Your task to perform on an android device: check battery use Image 0: 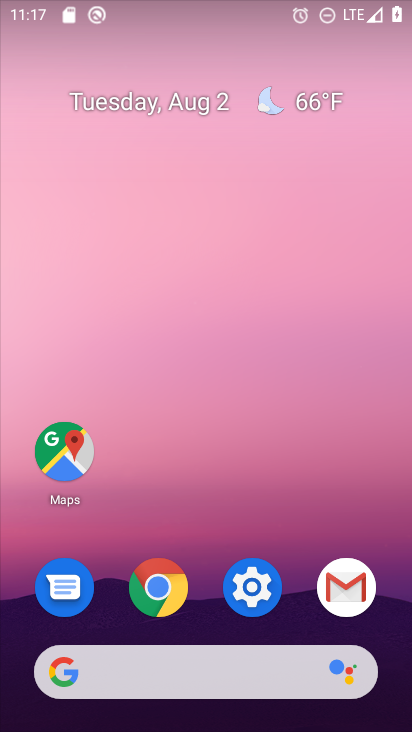
Step 0: click (251, 568)
Your task to perform on an android device: check battery use Image 1: 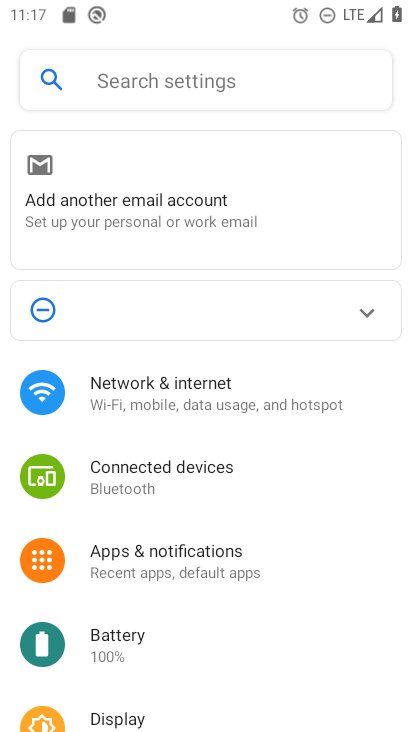
Step 1: click (136, 644)
Your task to perform on an android device: check battery use Image 2: 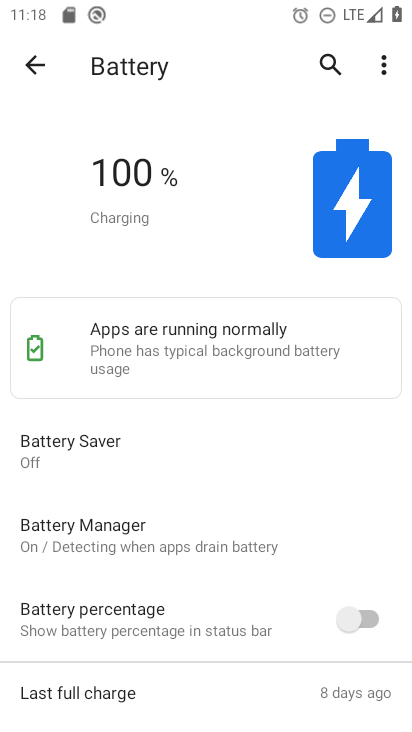
Step 2: task complete